Your task to perform on an android device: see creations saved in the google photos Image 0: 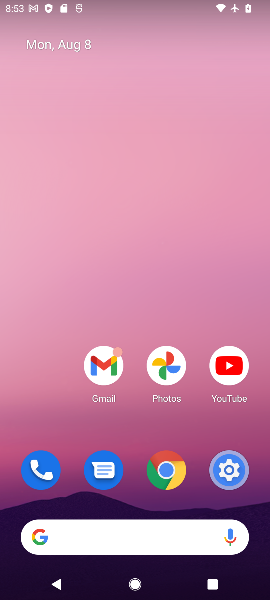
Step 0: click (166, 359)
Your task to perform on an android device: see creations saved in the google photos Image 1: 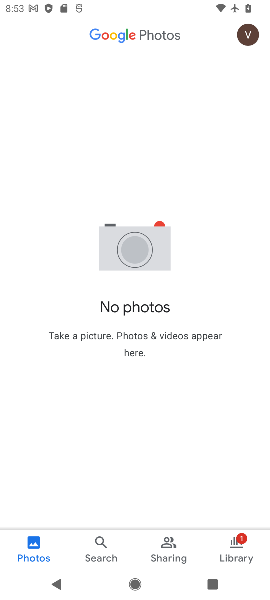
Step 1: click (238, 551)
Your task to perform on an android device: see creations saved in the google photos Image 2: 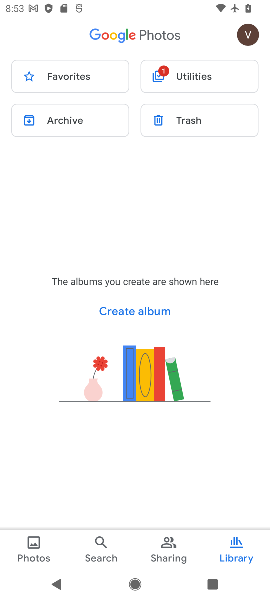
Step 2: drag from (151, 480) to (151, 263)
Your task to perform on an android device: see creations saved in the google photos Image 3: 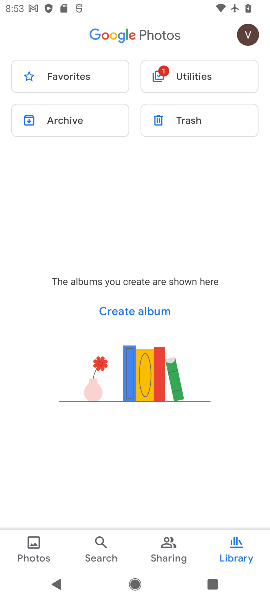
Step 3: click (63, 72)
Your task to perform on an android device: see creations saved in the google photos Image 4: 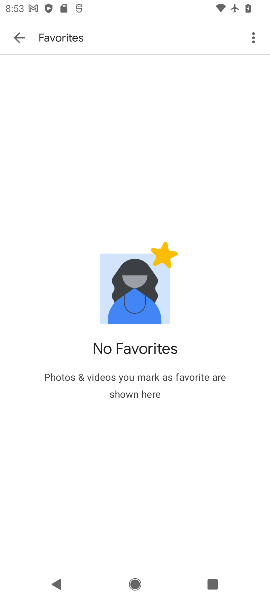
Step 4: click (10, 34)
Your task to perform on an android device: see creations saved in the google photos Image 5: 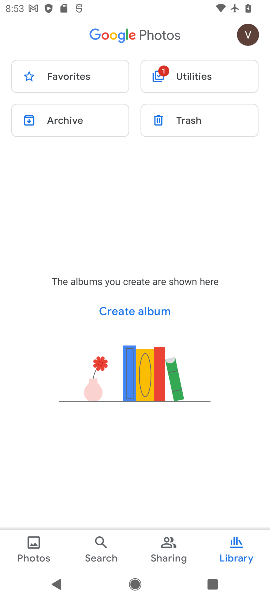
Step 5: task complete